Your task to perform on an android device: Set the phone to "Do not disturb". Image 0: 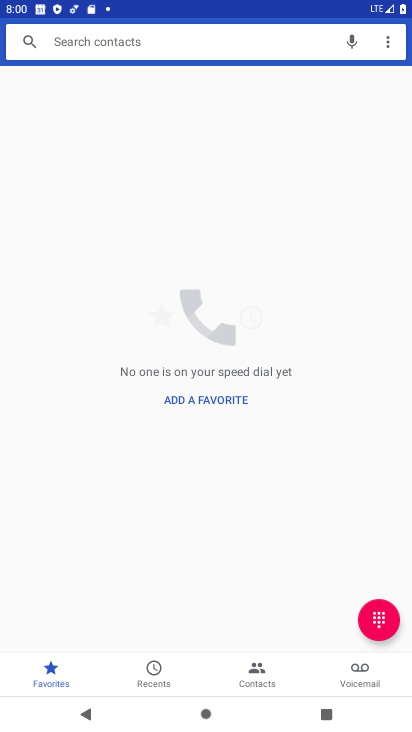
Step 0: press back button
Your task to perform on an android device: Set the phone to "Do not disturb". Image 1: 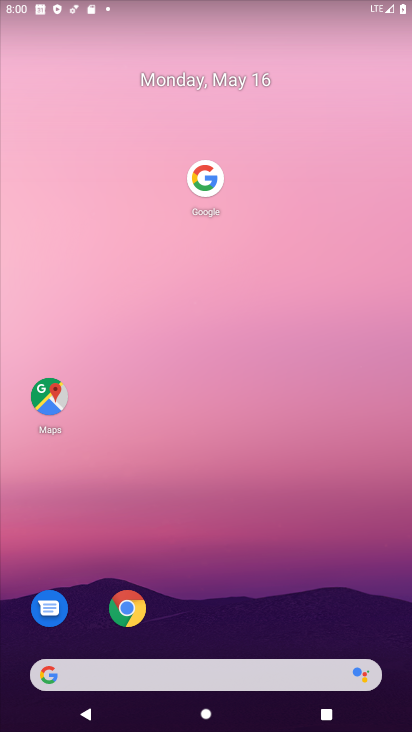
Step 1: drag from (245, 582) to (188, 32)
Your task to perform on an android device: Set the phone to "Do not disturb". Image 2: 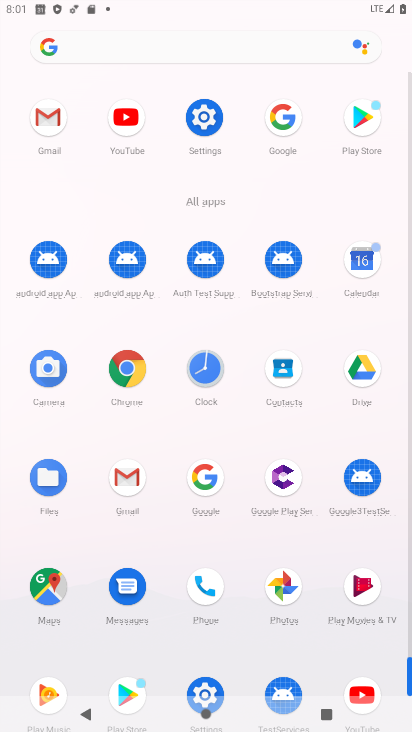
Step 2: click (206, 117)
Your task to perform on an android device: Set the phone to "Do not disturb". Image 3: 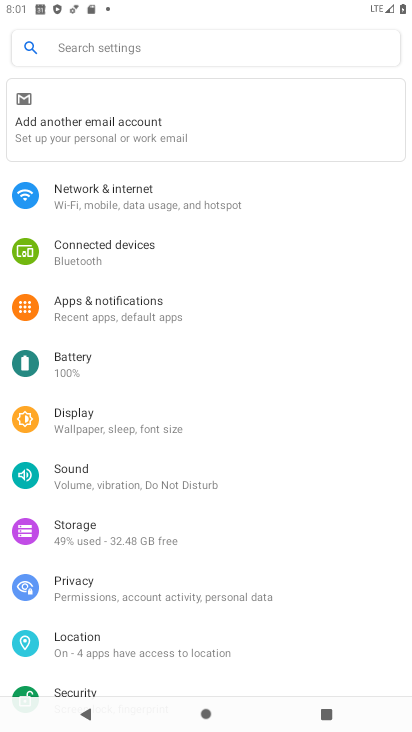
Step 3: drag from (113, 364) to (144, 279)
Your task to perform on an android device: Set the phone to "Do not disturb". Image 4: 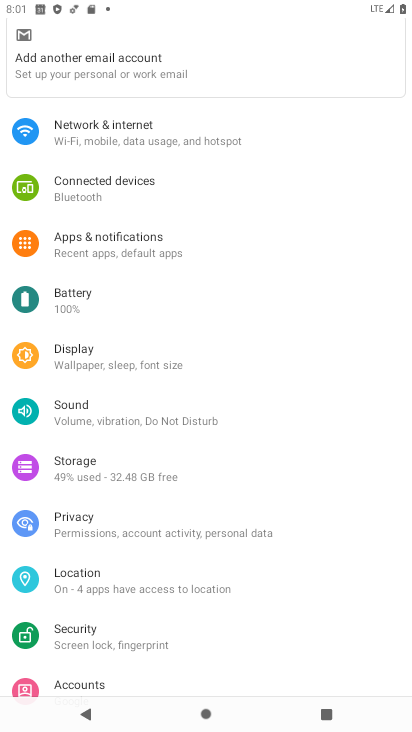
Step 4: click (125, 422)
Your task to perform on an android device: Set the phone to "Do not disturb". Image 5: 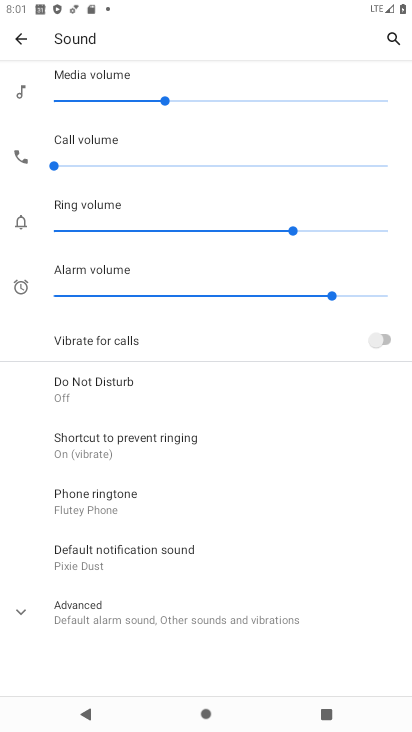
Step 5: click (129, 379)
Your task to perform on an android device: Set the phone to "Do not disturb". Image 6: 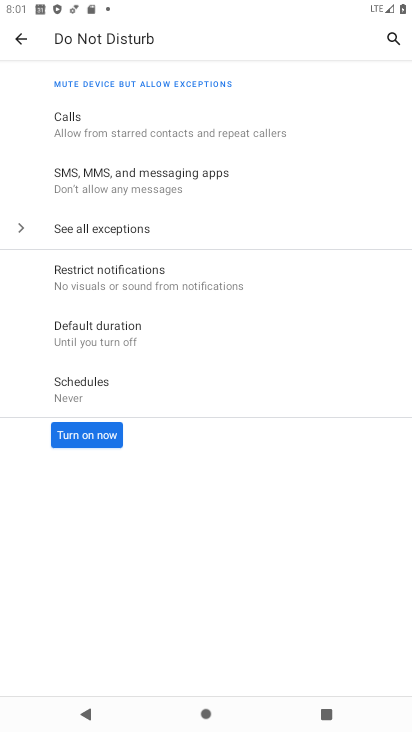
Step 6: click (88, 436)
Your task to perform on an android device: Set the phone to "Do not disturb". Image 7: 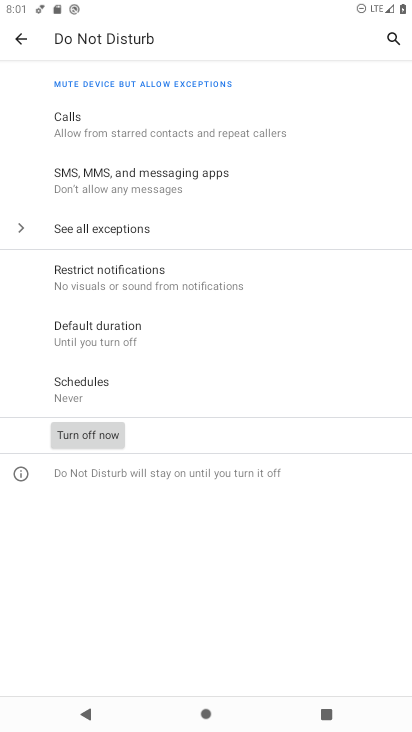
Step 7: task complete